Your task to perform on an android device: toggle data saver in the chrome app Image 0: 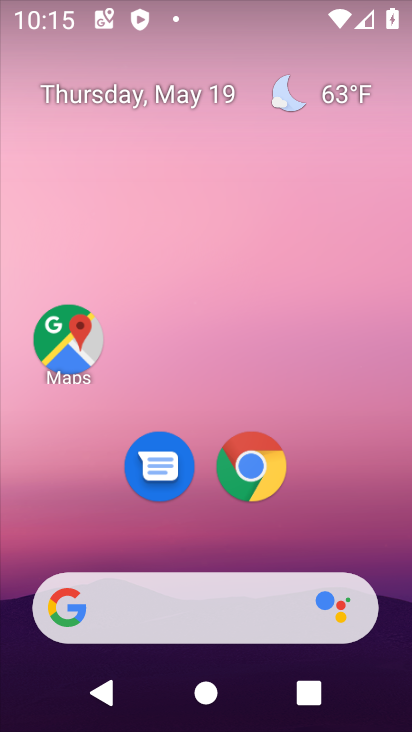
Step 0: drag from (397, 616) to (281, 124)
Your task to perform on an android device: toggle data saver in the chrome app Image 1: 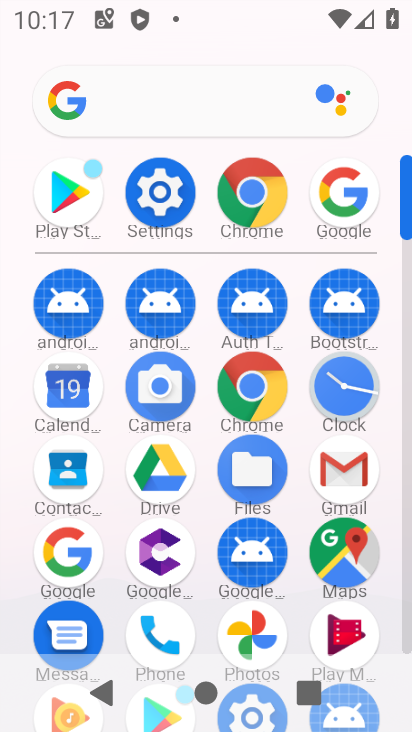
Step 1: click (261, 411)
Your task to perform on an android device: toggle data saver in the chrome app Image 2: 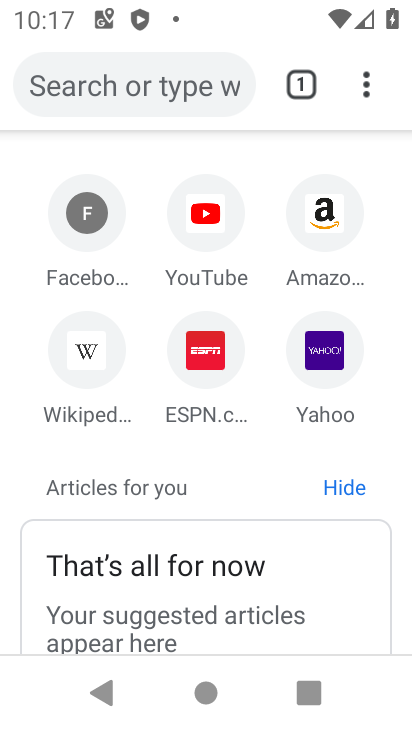
Step 2: click (366, 76)
Your task to perform on an android device: toggle data saver in the chrome app Image 3: 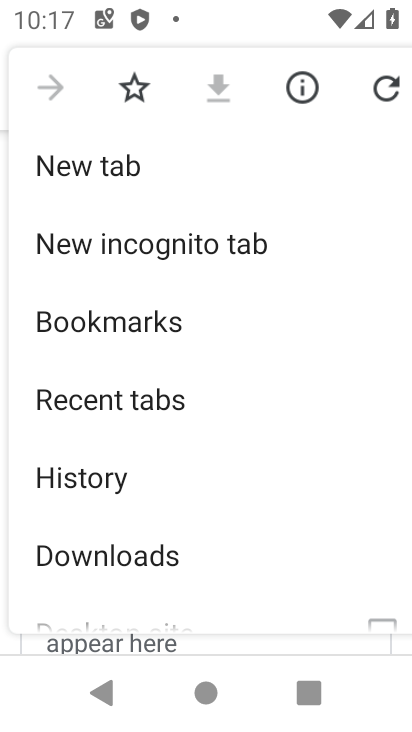
Step 3: drag from (232, 573) to (215, 210)
Your task to perform on an android device: toggle data saver in the chrome app Image 4: 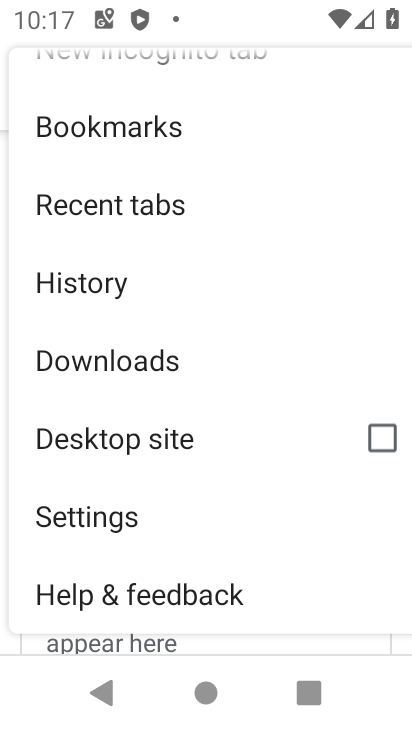
Step 4: click (116, 511)
Your task to perform on an android device: toggle data saver in the chrome app Image 5: 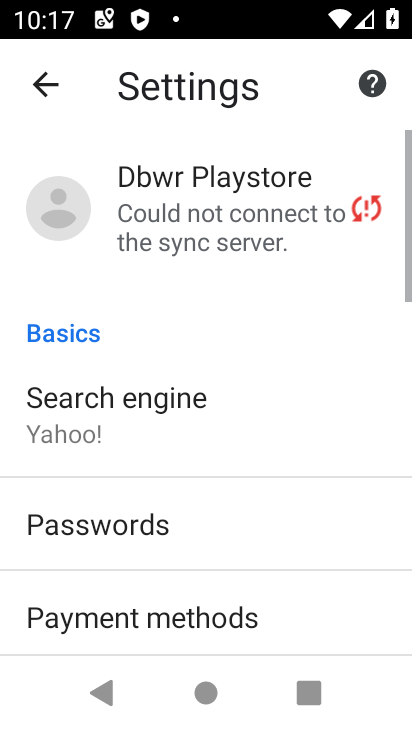
Step 5: drag from (187, 610) to (180, 144)
Your task to perform on an android device: toggle data saver in the chrome app Image 6: 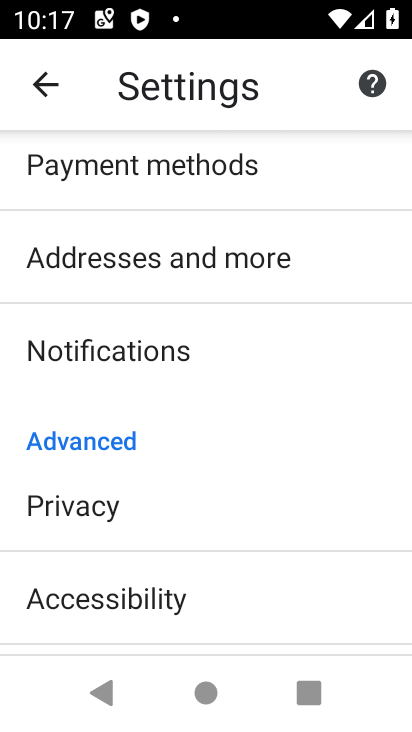
Step 6: drag from (170, 578) to (219, 199)
Your task to perform on an android device: toggle data saver in the chrome app Image 7: 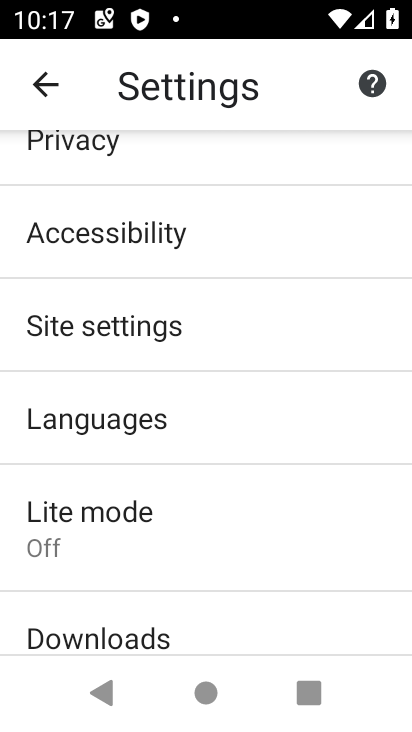
Step 7: click (159, 543)
Your task to perform on an android device: toggle data saver in the chrome app Image 8: 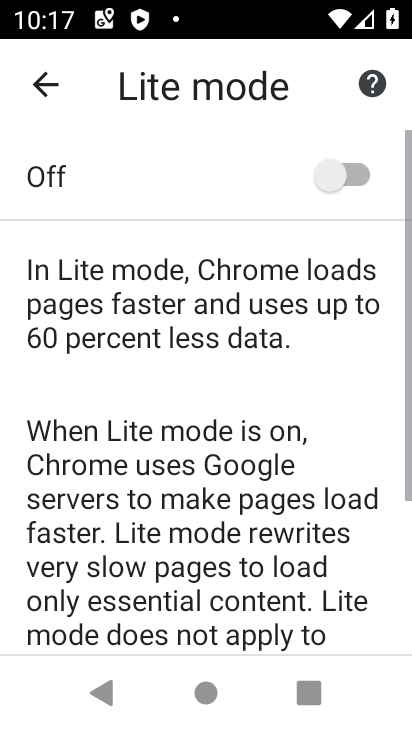
Step 8: click (342, 196)
Your task to perform on an android device: toggle data saver in the chrome app Image 9: 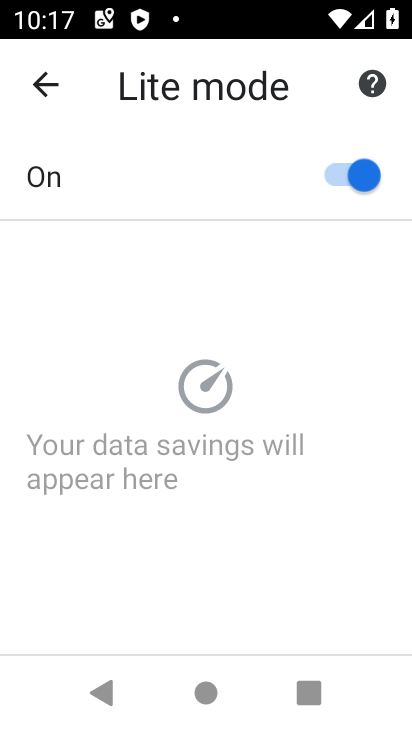
Step 9: task complete